Your task to perform on an android device: Show me productivity apps on the Play Store Image 0: 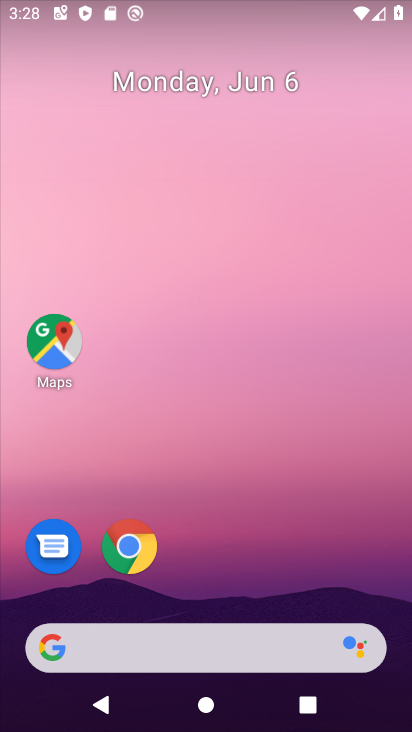
Step 0: drag from (243, 599) to (247, 184)
Your task to perform on an android device: Show me productivity apps on the Play Store Image 1: 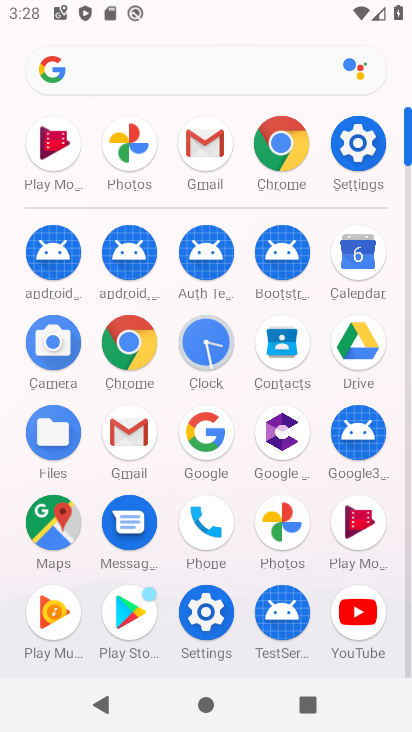
Step 1: click (113, 640)
Your task to perform on an android device: Show me productivity apps on the Play Store Image 2: 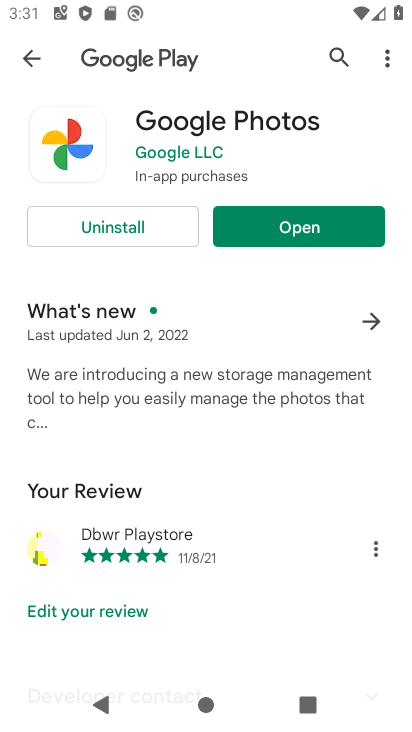
Step 2: press home button
Your task to perform on an android device: Show me productivity apps on the Play Store Image 3: 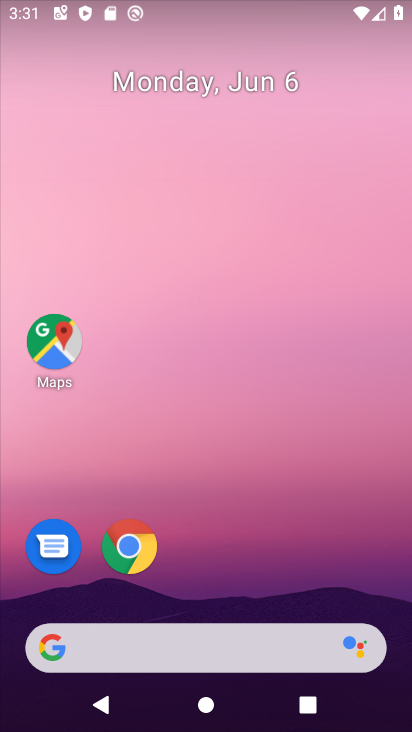
Step 3: drag from (353, 599) to (211, 11)
Your task to perform on an android device: Show me productivity apps on the Play Store Image 4: 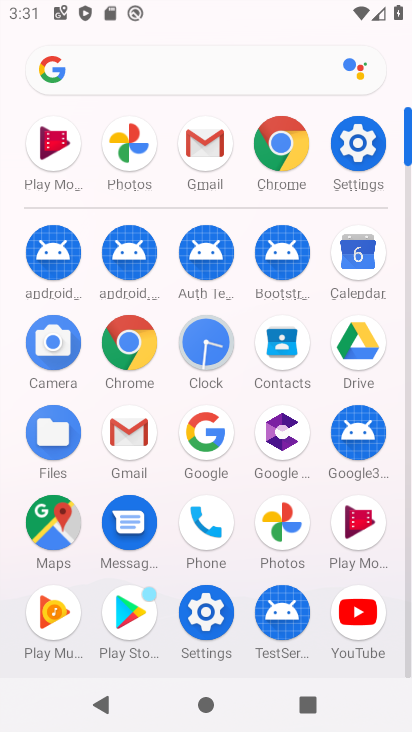
Step 4: click (111, 610)
Your task to perform on an android device: Show me productivity apps on the Play Store Image 5: 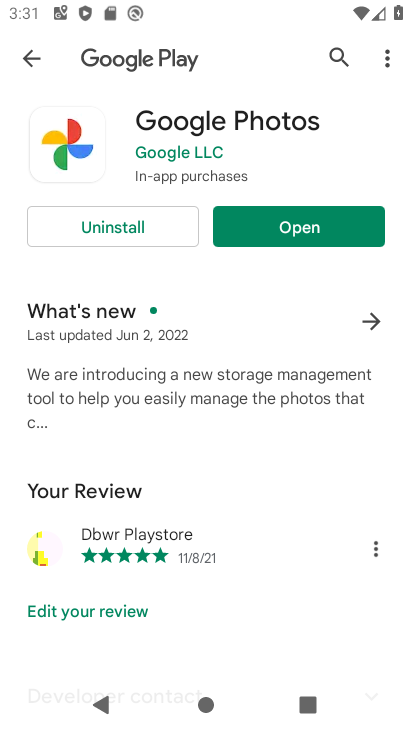
Step 5: click (274, 223)
Your task to perform on an android device: Show me productivity apps on the Play Store Image 6: 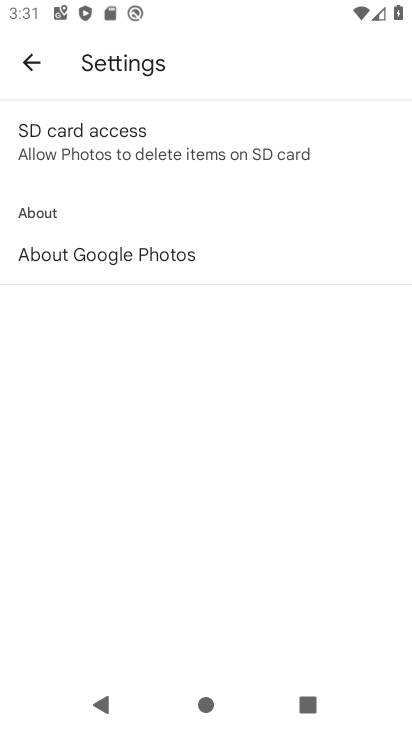
Step 6: click (12, 66)
Your task to perform on an android device: Show me productivity apps on the Play Store Image 7: 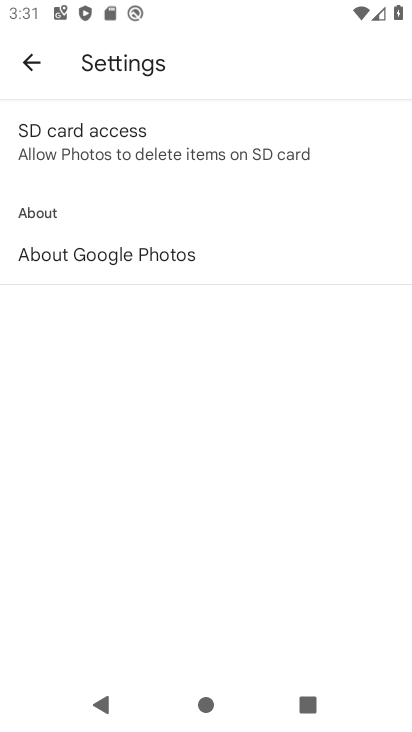
Step 7: click (12, 66)
Your task to perform on an android device: Show me productivity apps on the Play Store Image 8: 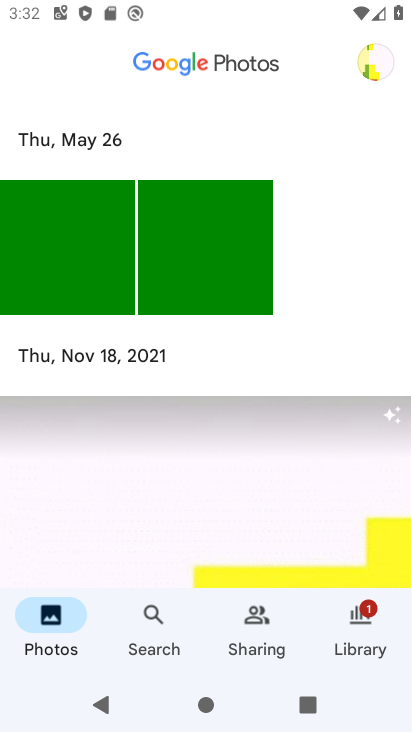
Step 8: task complete